Your task to perform on an android device: toggle javascript in the chrome app Image 0: 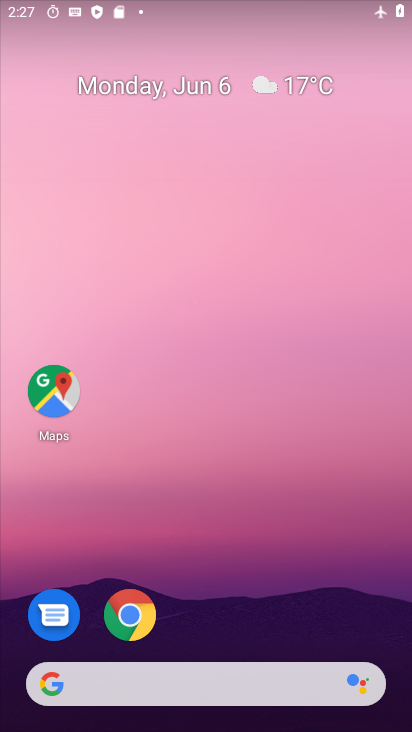
Step 0: drag from (232, 630) to (258, 126)
Your task to perform on an android device: toggle javascript in the chrome app Image 1: 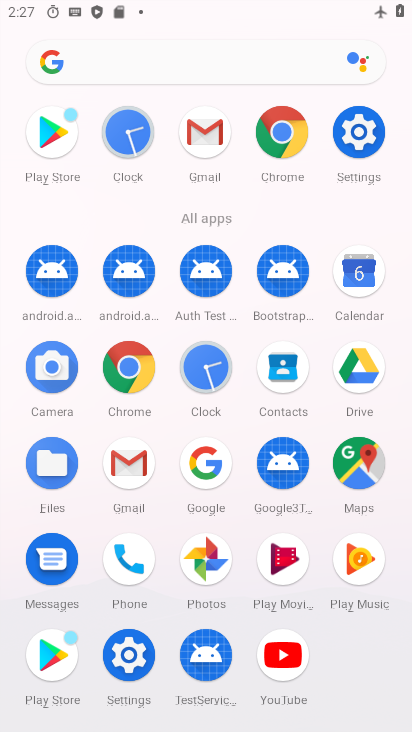
Step 1: click (294, 159)
Your task to perform on an android device: toggle javascript in the chrome app Image 2: 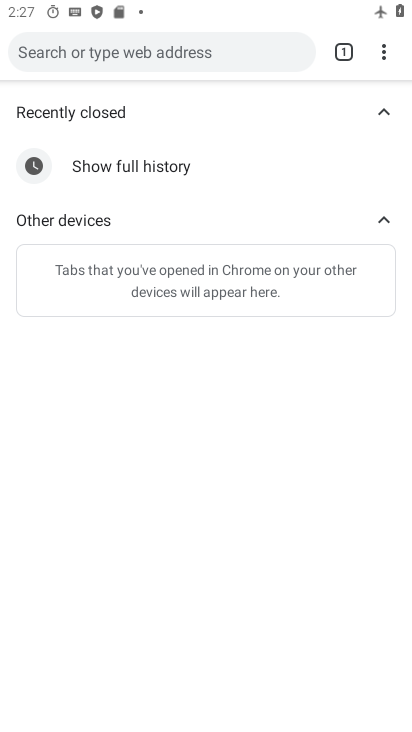
Step 2: click (386, 48)
Your task to perform on an android device: toggle javascript in the chrome app Image 3: 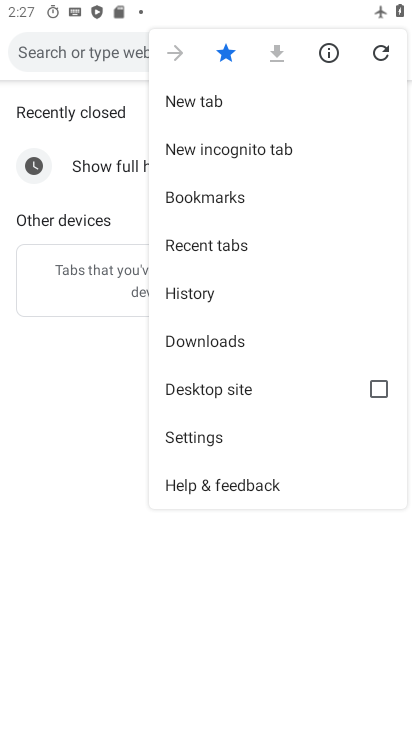
Step 3: click (192, 437)
Your task to perform on an android device: toggle javascript in the chrome app Image 4: 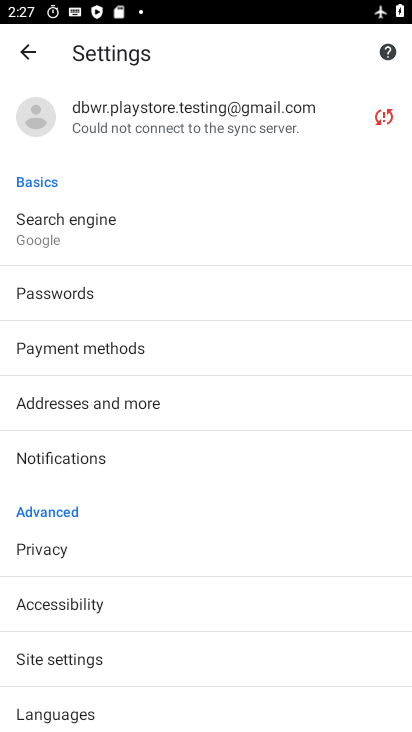
Step 4: click (87, 666)
Your task to perform on an android device: toggle javascript in the chrome app Image 5: 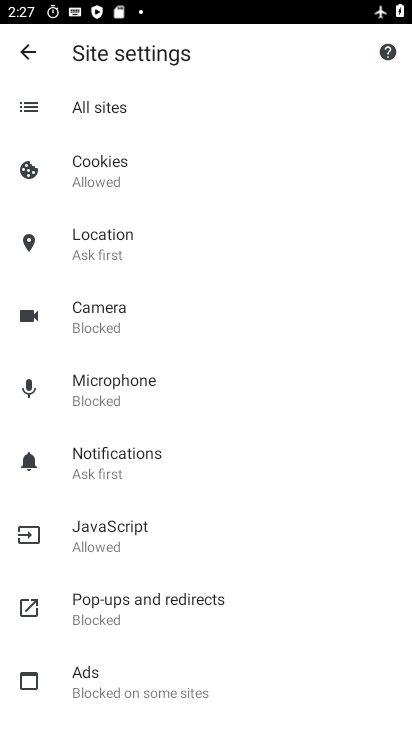
Step 5: click (138, 531)
Your task to perform on an android device: toggle javascript in the chrome app Image 6: 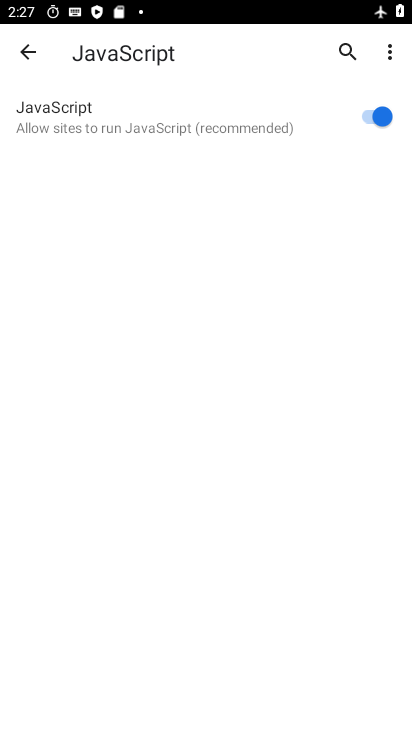
Step 6: click (345, 108)
Your task to perform on an android device: toggle javascript in the chrome app Image 7: 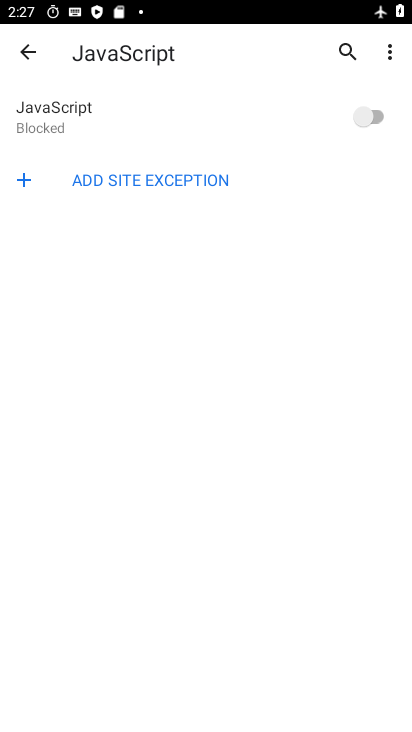
Step 7: task complete